Your task to perform on an android device: Show me popular games on the Play Store Image 0: 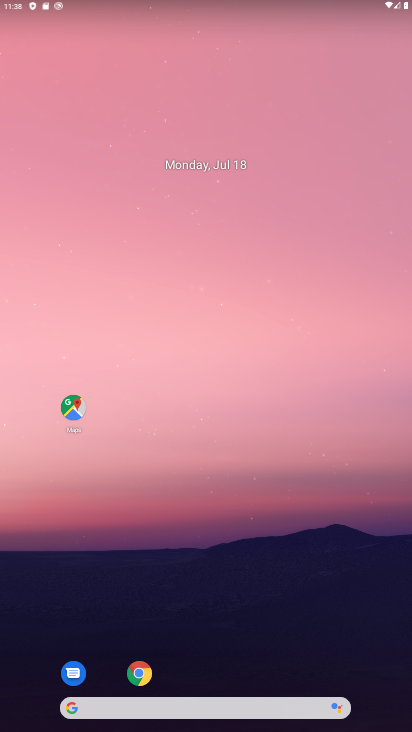
Step 0: drag from (206, 664) to (177, 30)
Your task to perform on an android device: Show me popular games on the Play Store Image 1: 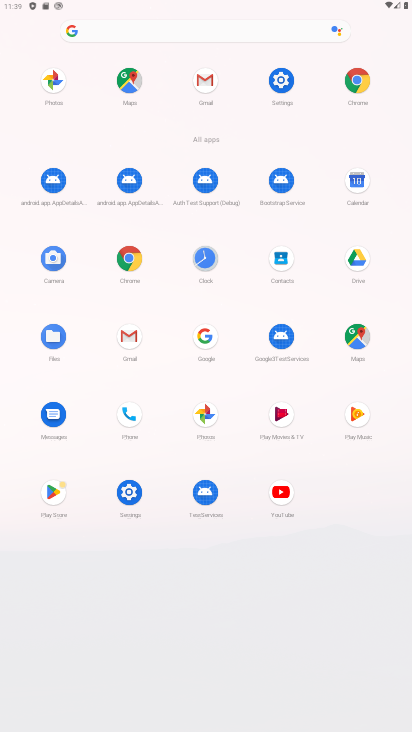
Step 1: click (53, 488)
Your task to perform on an android device: Show me popular games on the Play Store Image 2: 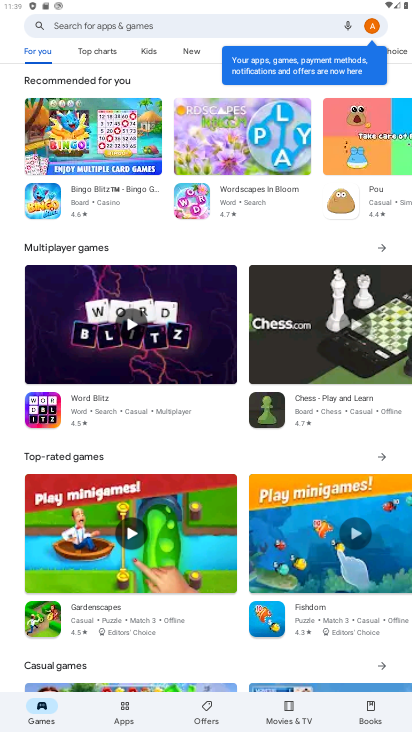
Step 2: task complete